Your task to perform on an android device: snooze an email in the gmail app Image 0: 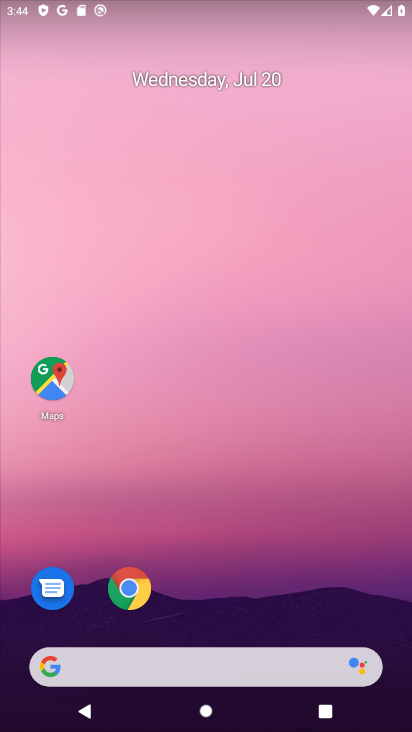
Step 0: drag from (242, 625) to (261, 160)
Your task to perform on an android device: snooze an email in the gmail app Image 1: 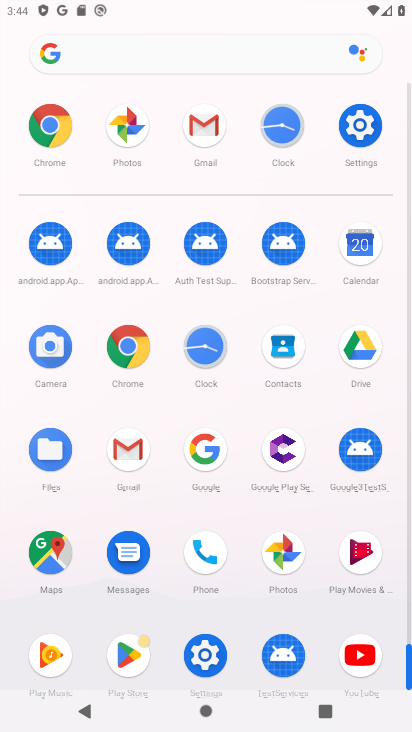
Step 1: click (205, 146)
Your task to perform on an android device: snooze an email in the gmail app Image 2: 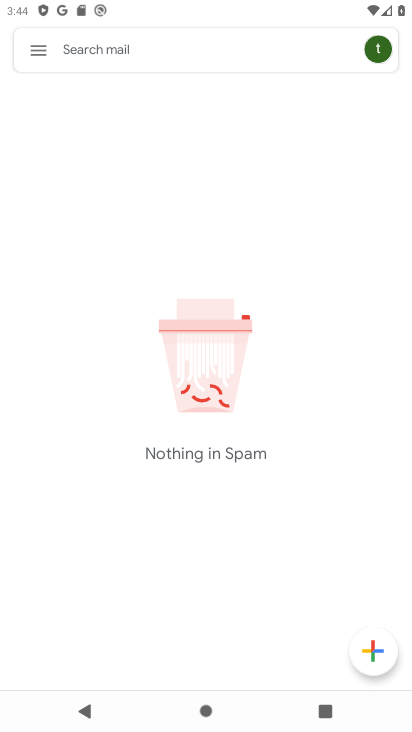
Step 2: click (28, 59)
Your task to perform on an android device: snooze an email in the gmail app Image 3: 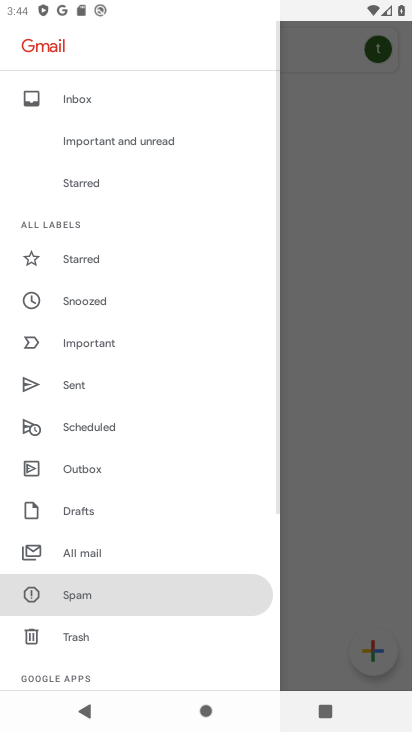
Step 3: click (120, 91)
Your task to perform on an android device: snooze an email in the gmail app Image 4: 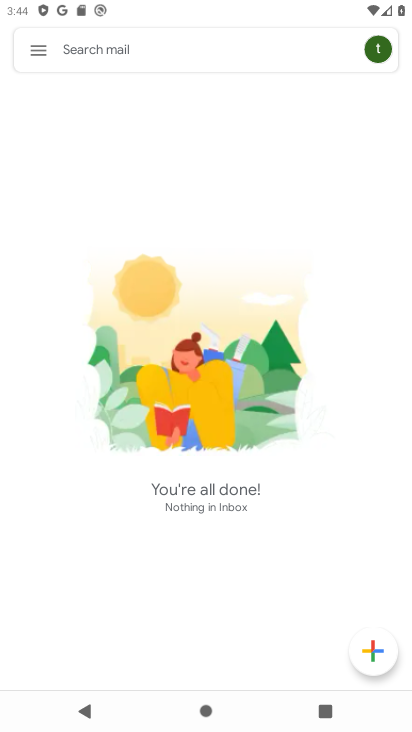
Step 4: task complete